Your task to perform on an android device: refresh tabs in the chrome app Image 0: 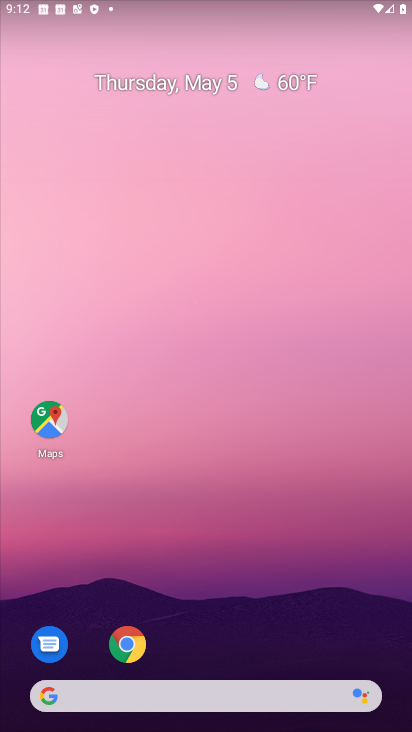
Step 0: drag from (223, 668) to (193, 137)
Your task to perform on an android device: refresh tabs in the chrome app Image 1: 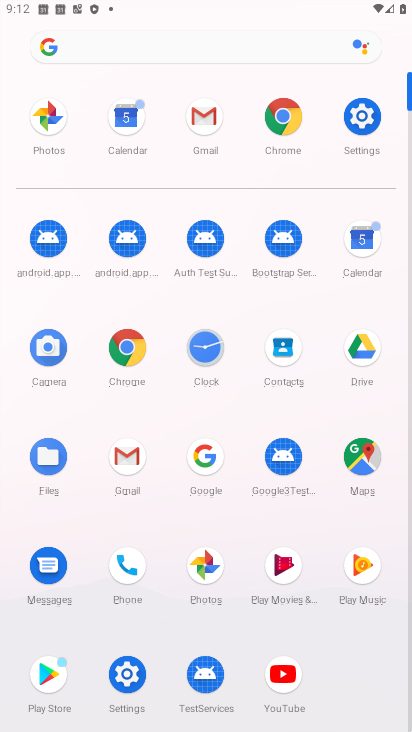
Step 1: click (106, 340)
Your task to perform on an android device: refresh tabs in the chrome app Image 2: 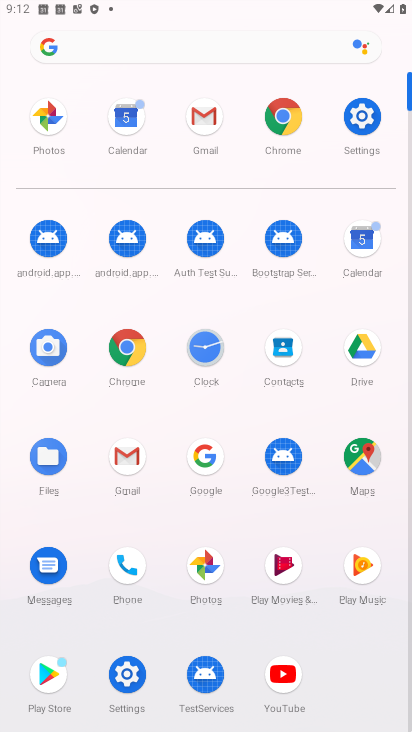
Step 2: click (117, 345)
Your task to perform on an android device: refresh tabs in the chrome app Image 3: 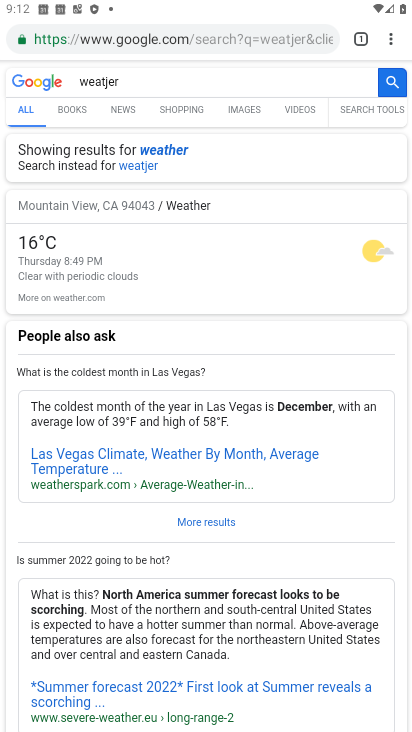
Step 3: click (400, 26)
Your task to perform on an android device: refresh tabs in the chrome app Image 4: 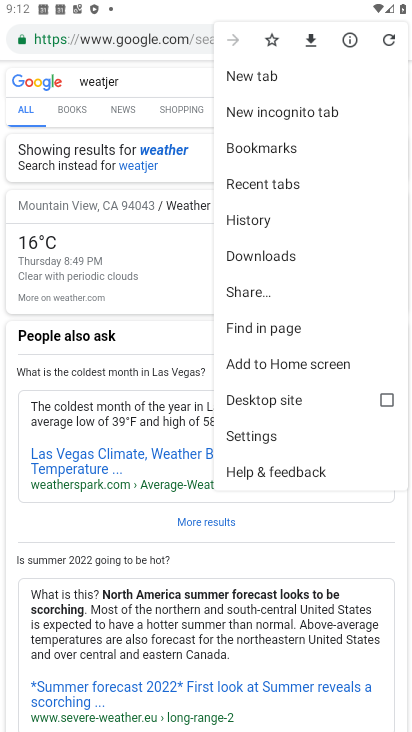
Step 4: click (399, 29)
Your task to perform on an android device: refresh tabs in the chrome app Image 5: 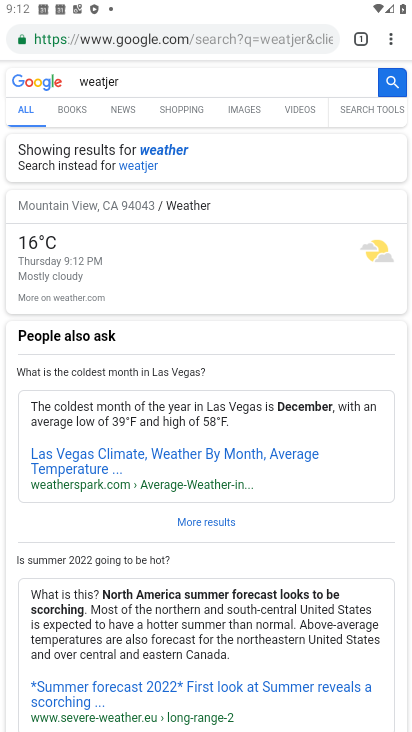
Step 5: task complete